Your task to perform on an android device: empty trash in the gmail app Image 0: 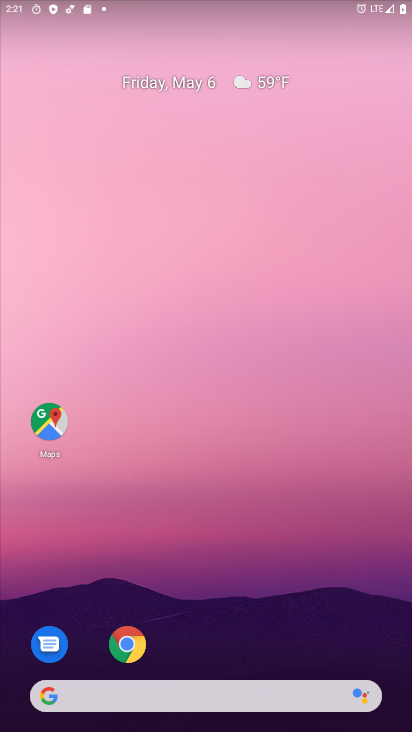
Step 0: drag from (222, 640) to (236, 100)
Your task to perform on an android device: empty trash in the gmail app Image 1: 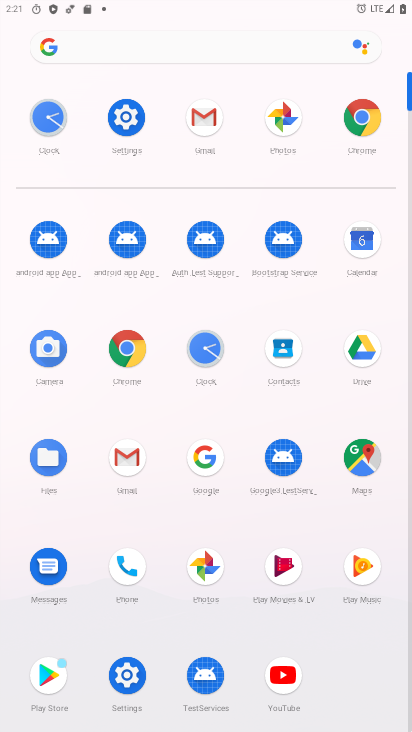
Step 1: click (207, 121)
Your task to perform on an android device: empty trash in the gmail app Image 2: 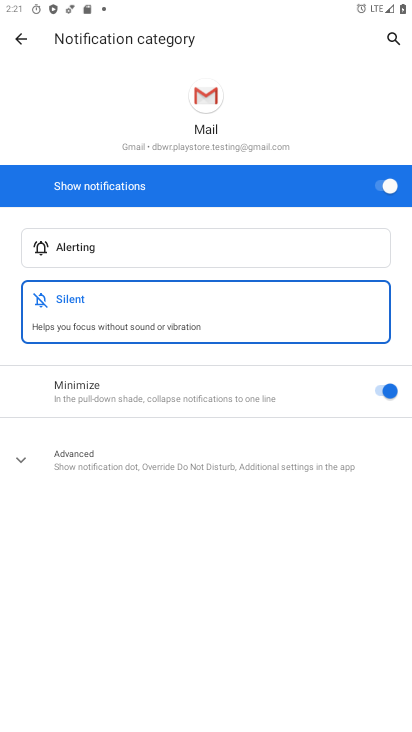
Step 2: click (16, 39)
Your task to perform on an android device: empty trash in the gmail app Image 3: 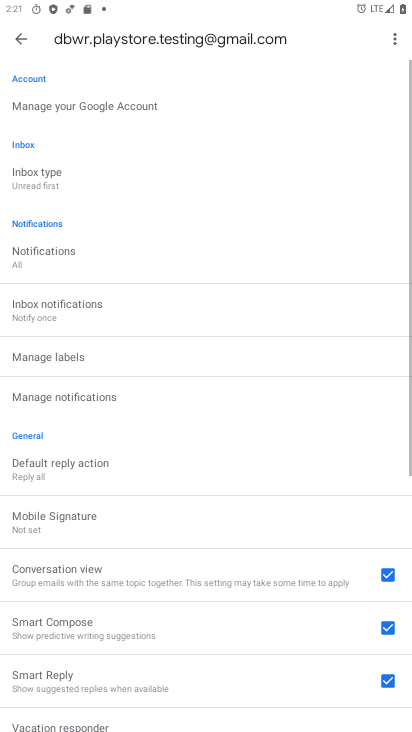
Step 3: click (16, 39)
Your task to perform on an android device: empty trash in the gmail app Image 4: 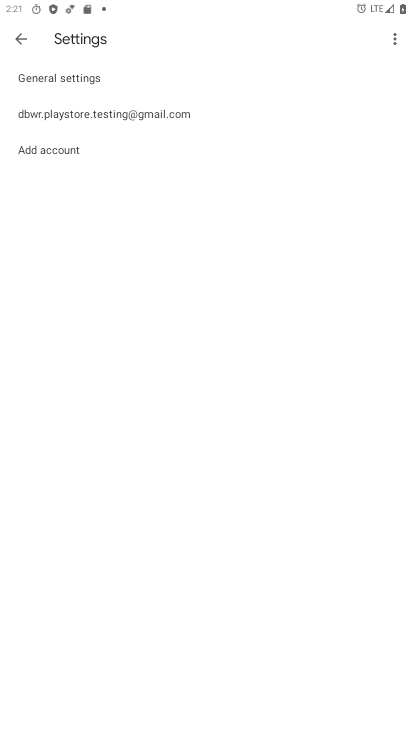
Step 4: click (16, 39)
Your task to perform on an android device: empty trash in the gmail app Image 5: 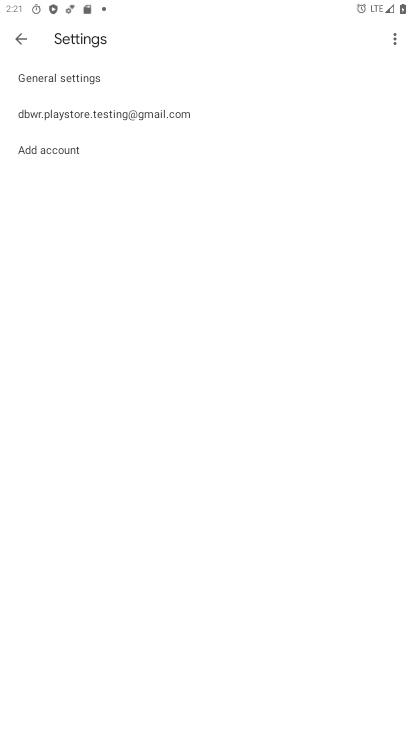
Step 5: click (23, 39)
Your task to perform on an android device: empty trash in the gmail app Image 6: 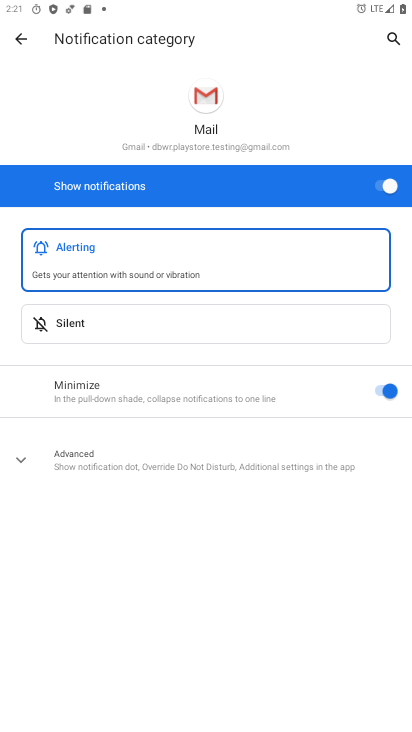
Step 6: click (23, 39)
Your task to perform on an android device: empty trash in the gmail app Image 7: 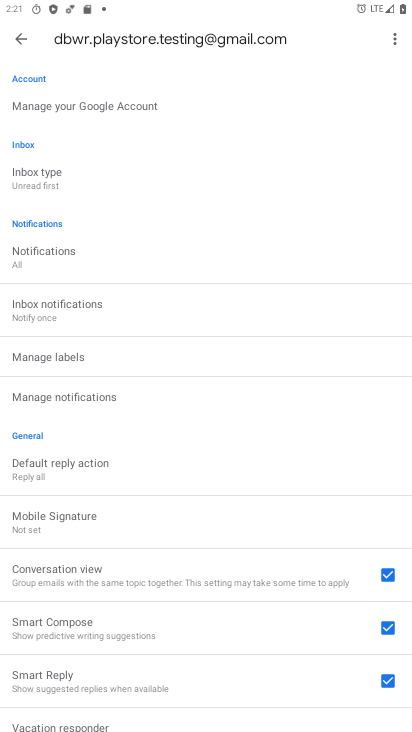
Step 7: click (23, 39)
Your task to perform on an android device: empty trash in the gmail app Image 8: 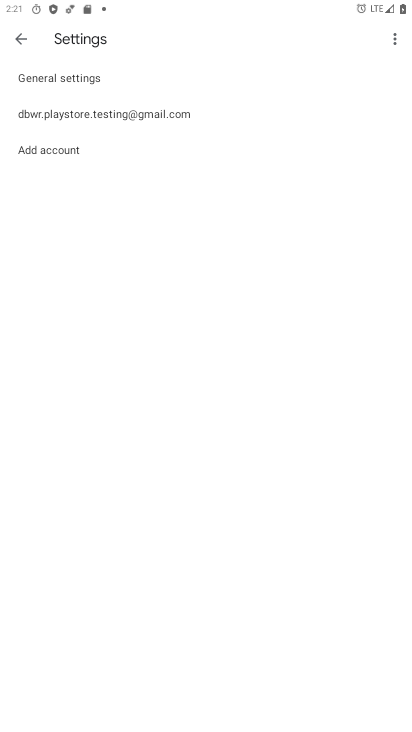
Step 8: click (23, 39)
Your task to perform on an android device: empty trash in the gmail app Image 9: 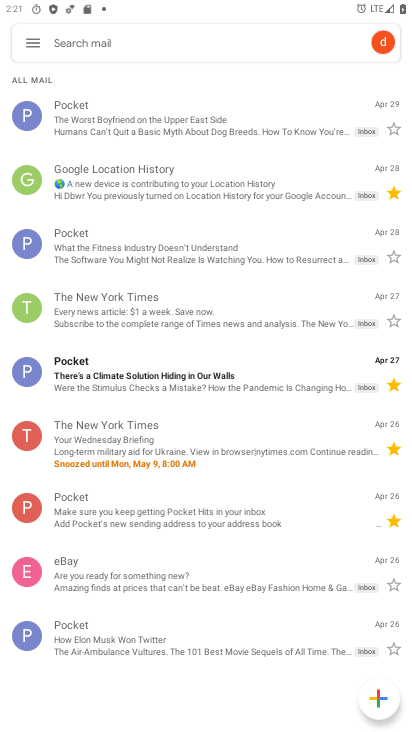
Step 9: click (23, 39)
Your task to perform on an android device: empty trash in the gmail app Image 10: 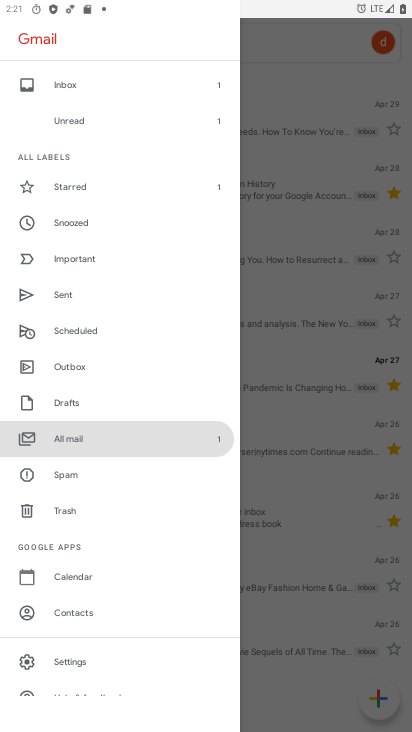
Step 10: click (100, 515)
Your task to perform on an android device: empty trash in the gmail app Image 11: 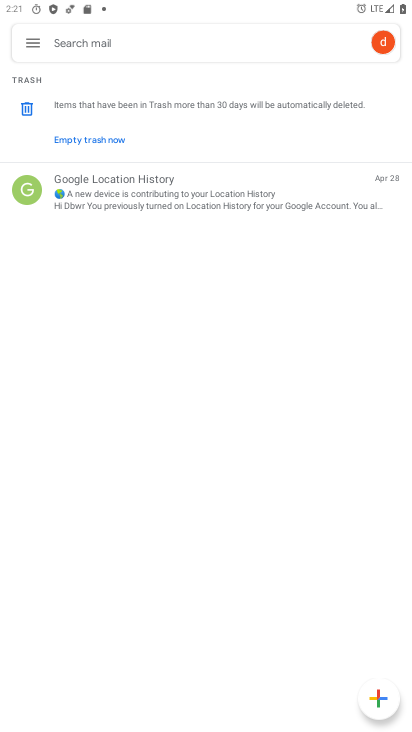
Step 11: click (88, 140)
Your task to perform on an android device: empty trash in the gmail app Image 12: 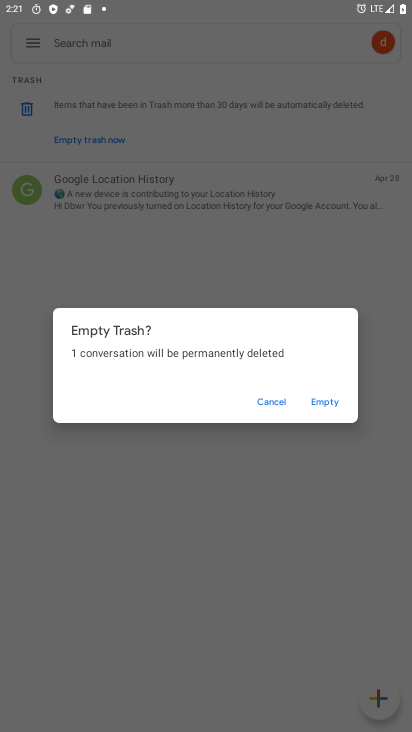
Step 12: click (321, 407)
Your task to perform on an android device: empty trash in the gmail app Image 13: 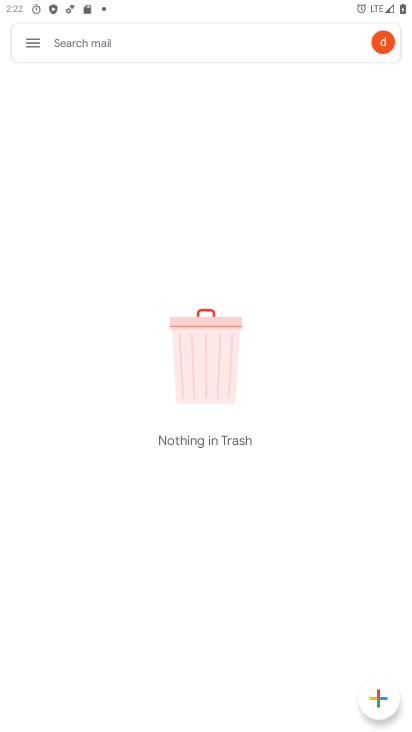
Step 13: task complete